Your task to perform on an android device: turn off javascript in the chrome app Image 0: 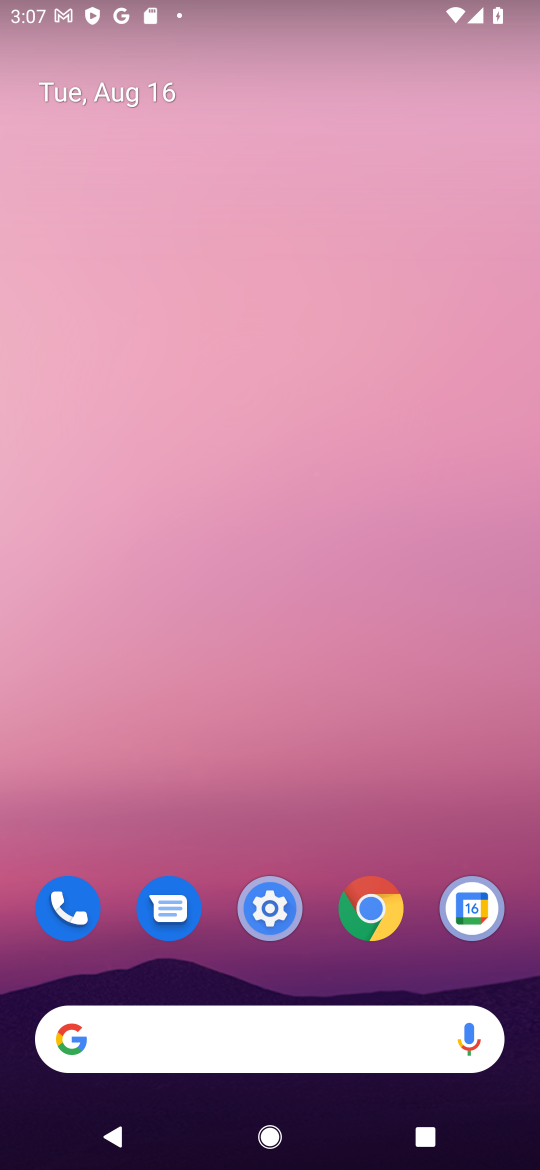
Step 0: click (359, 909)
Your task to perform on an android device: turn off javascript in the chrome app Image 1: 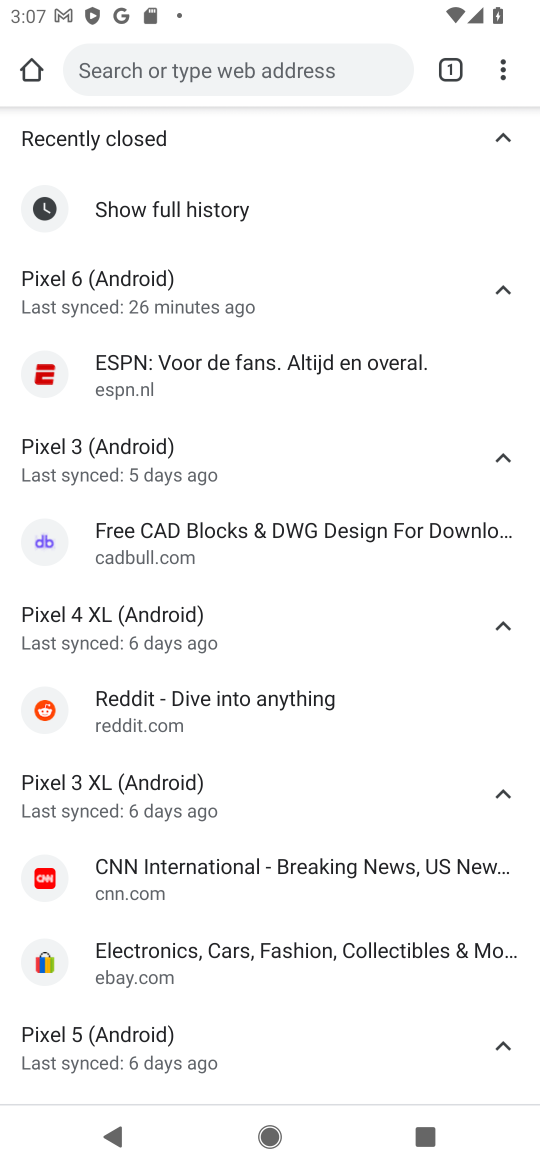
Step 1: drag from (509, 64) to (330, 603)
Your task to perform on an android device: turn off javascript in the chrome app Image 2: 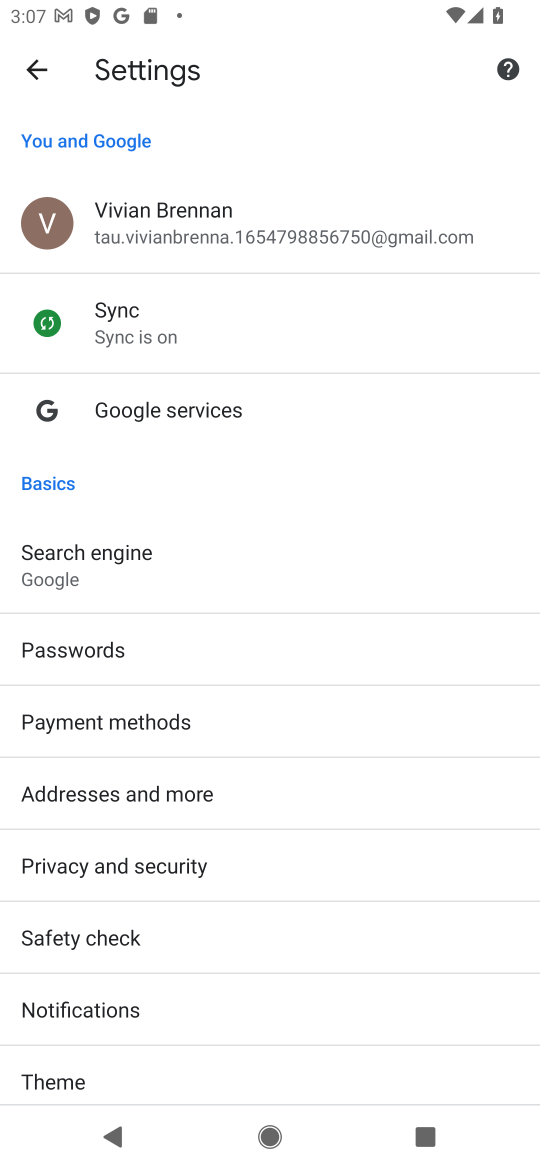
Step 2: drag from (179, 898) to (350, 218)
Your task to perform on an android device: turn off javascript in the chrome app Image 3: 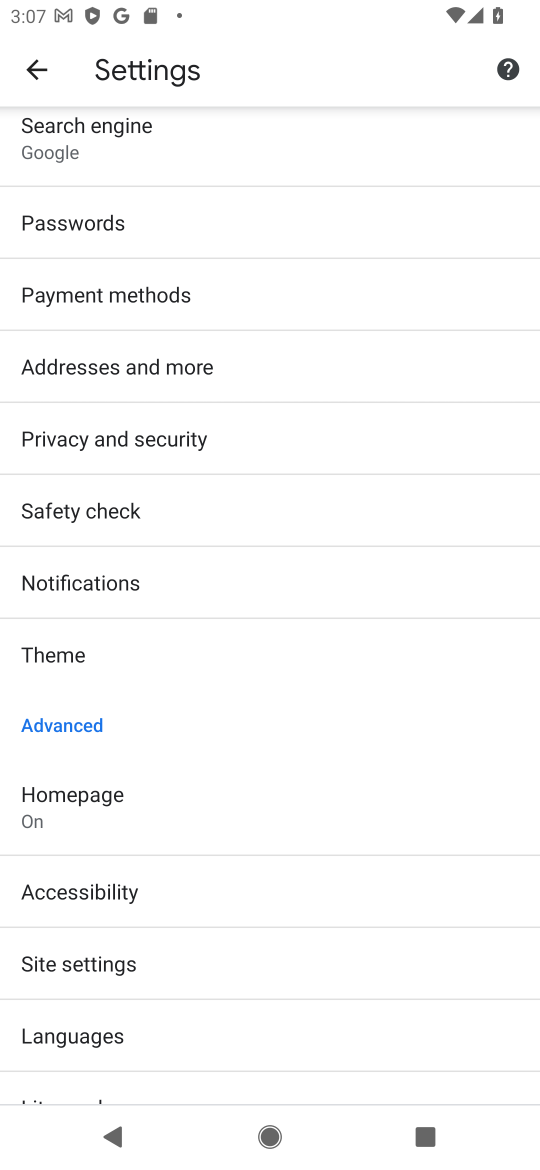
Step 3: click (104, 958)
Your task to perform on an android device: turn off javascript in the chrome app Image 4: 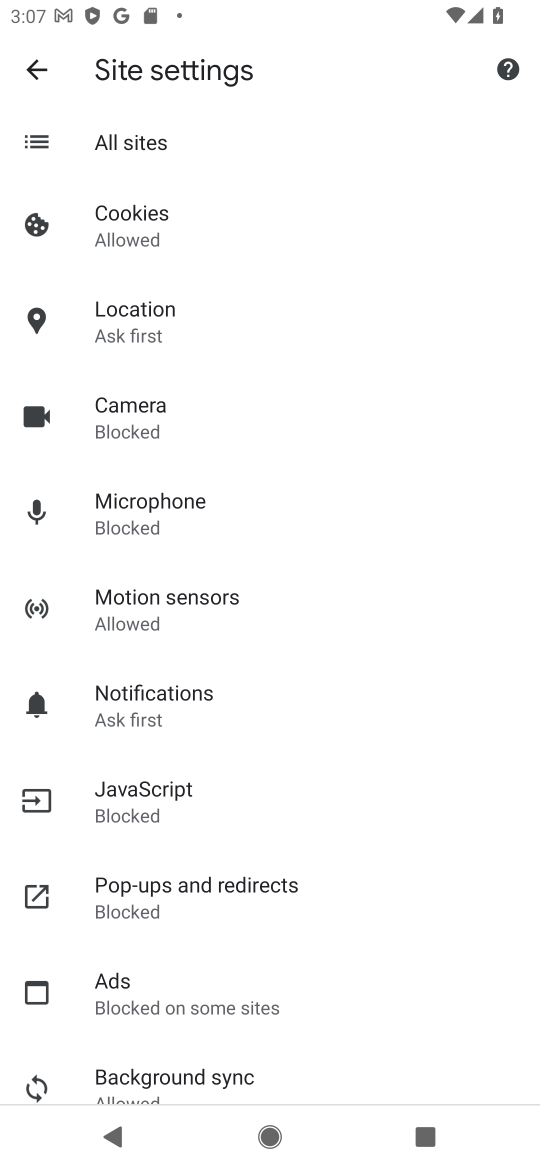
Step 4: click (160, 816)
Your task to perform on an android device: turn off javascript in the chrome app Image 5: 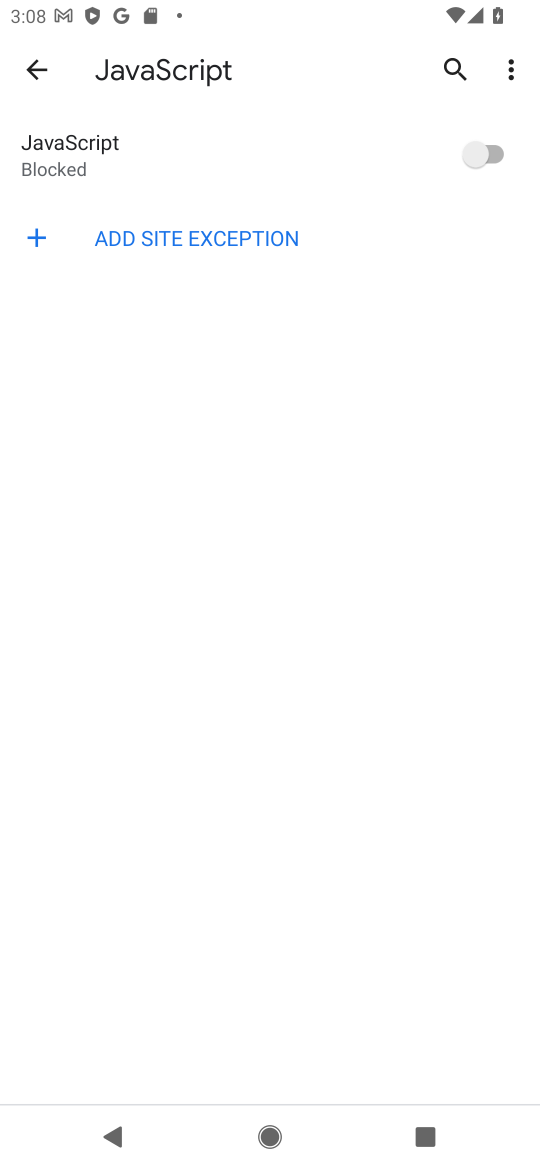
Step 5: task complete